Your task to perform on an android device: Go to accessibility settings Image 0: 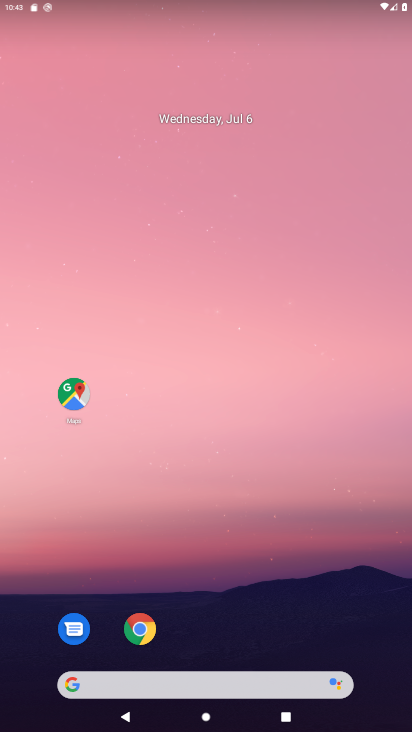
Step 0: drag from (215, 632) to (214, 373)
Your task to perform on an android device: Go to accessibility settings Image 1: 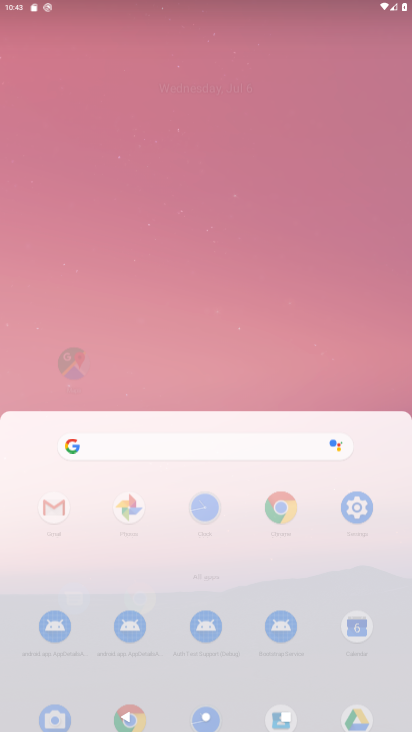
Step 1: drag from (207, 159) to (204, 63)
Your task to perform on an android device: Go to accessibility settings Image 2: 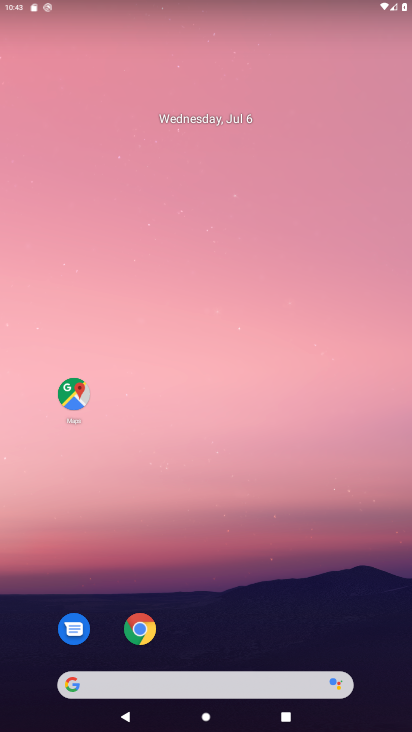
Step 2: drag from (215, 633) to (227, 106)
Your task to perform on an android device: Go to accessibility settings Image 3: 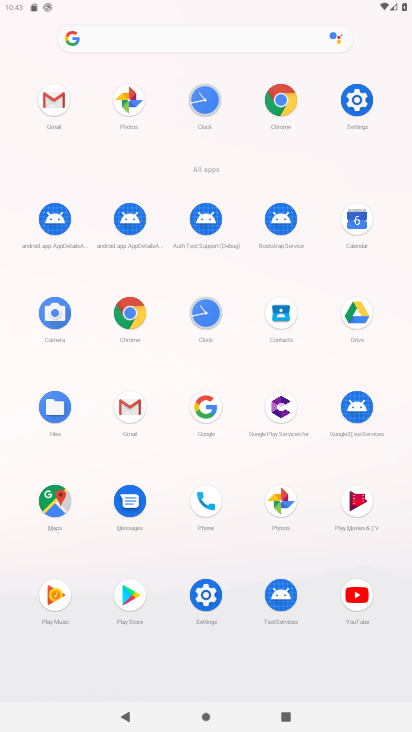
Step 3: click (354, 94)
Your task to perform on an android device: Go to accessibility settings Image 4: 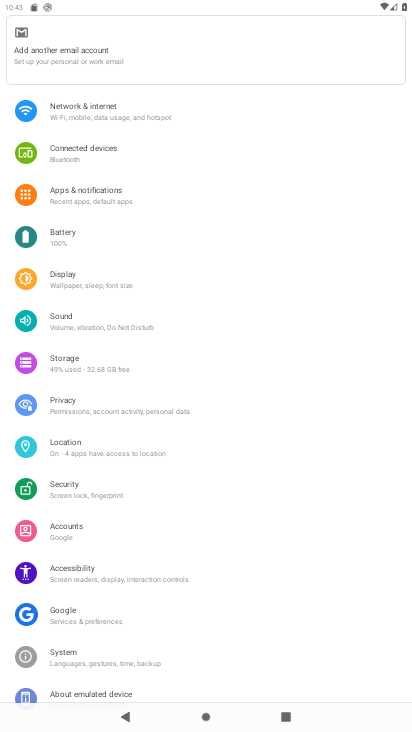
Step 4: drag from (127, 647) to (159, 166)
Your task to perform on an android device: Go to accessibility settings Image 5: 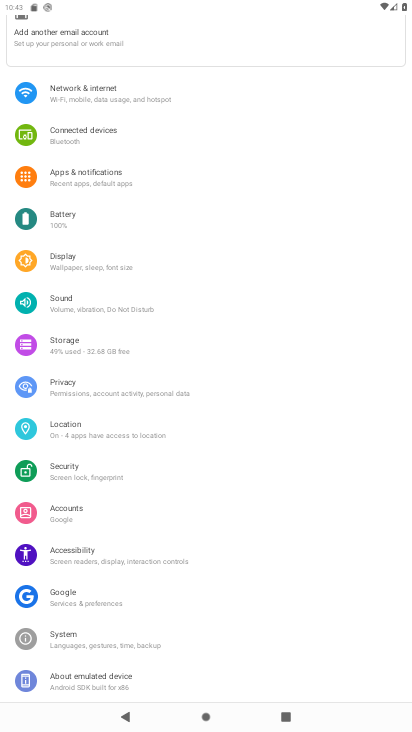
Step 5: click (110, 551)
Your task to perform on an android device: Go to accessibility settings Image 6: 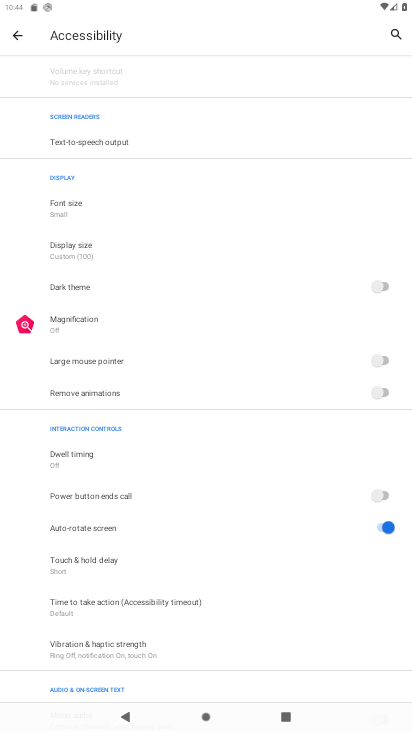
Step 6: task complete